Your task to perform on an android device: turn on wifi Image 0: 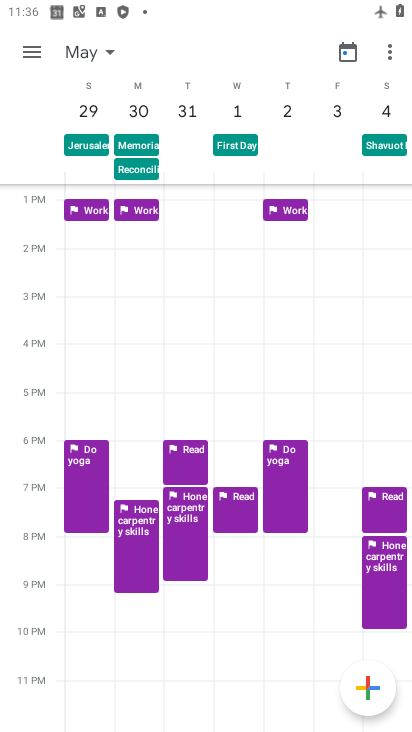
Step 0: press home button
Your task to perform on an android device: turn on wifi Image 1: 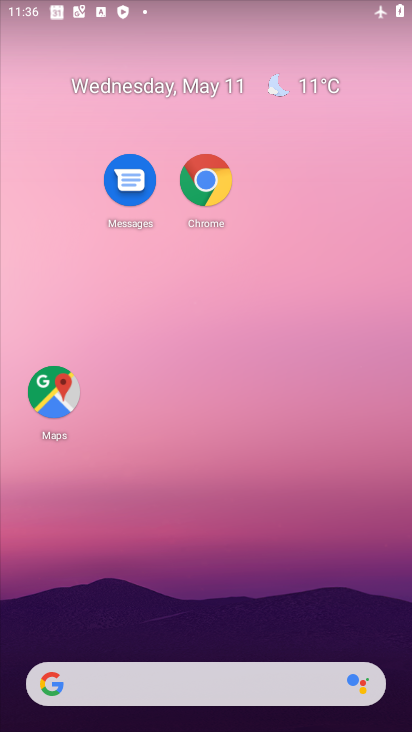
Step 1: drag from (235, 556) to (213, 125)
Your task to perform on an android device: turn on wifi Image 2: 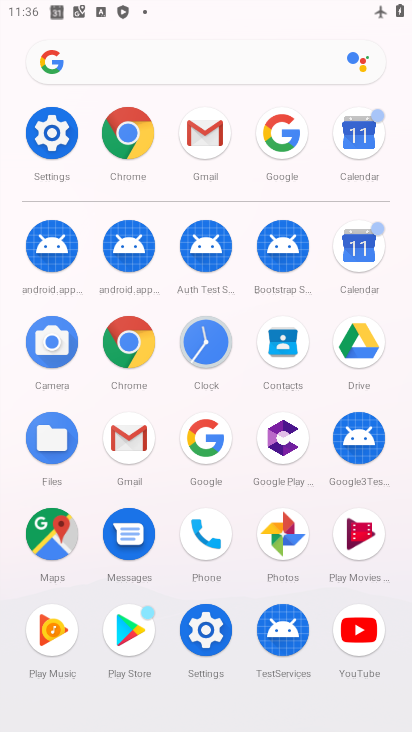
Step 2: click (42, 120)
Your task to perform on an android device: turn on wifi Image 3: 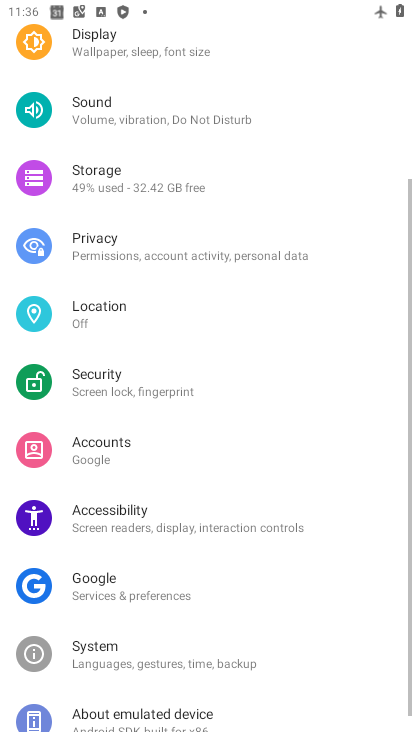
Step 3: drag from (121, 146) to (175, 584)
Your task to perform on an android device: turn on wifi Image 4: 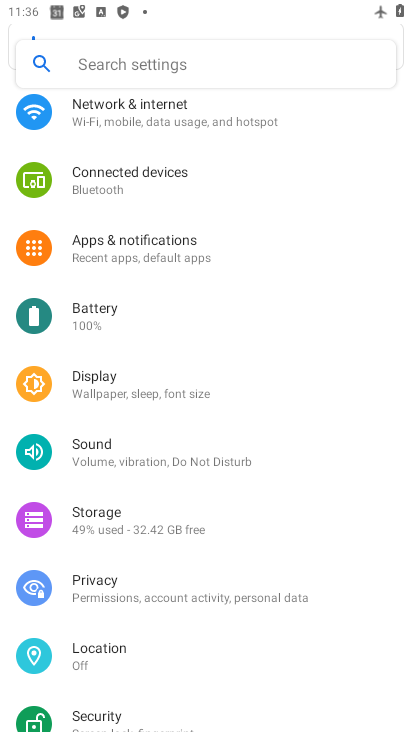
Step 4: drag from (176, 218) to (170, 646)
Your task to perform on an android device: turn on wifi Image 5: 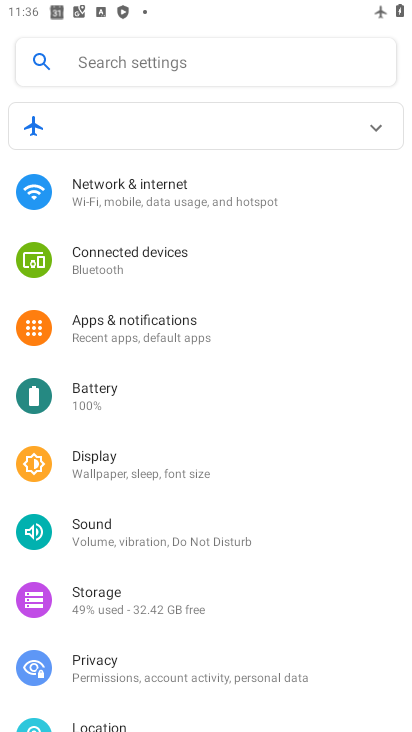
Step 5: click (181, 212)
Your task to perform on an android device: turn on wifi Image 6: 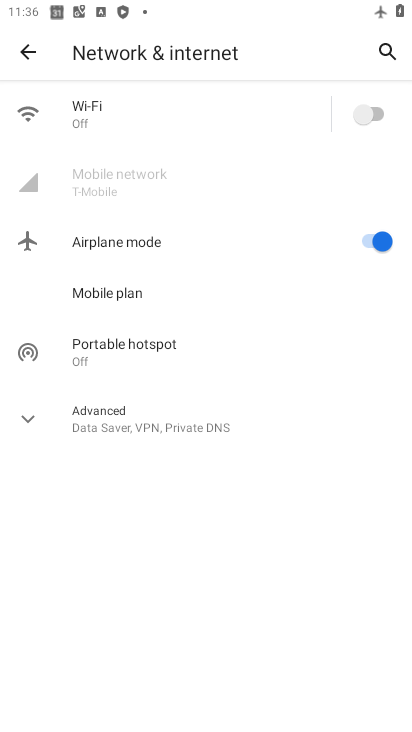
Step 6: click (356, 126)
Your task to perform on an android device: turn on wifi Image 7: 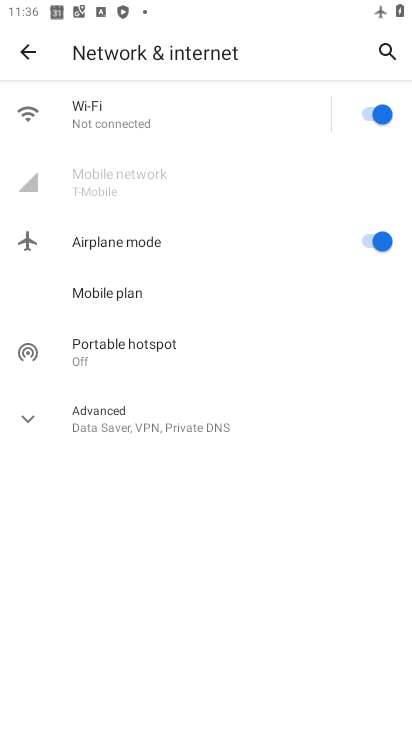
Step 7: task complete